Your task to perform on an android device: Open Amazon Image 0: 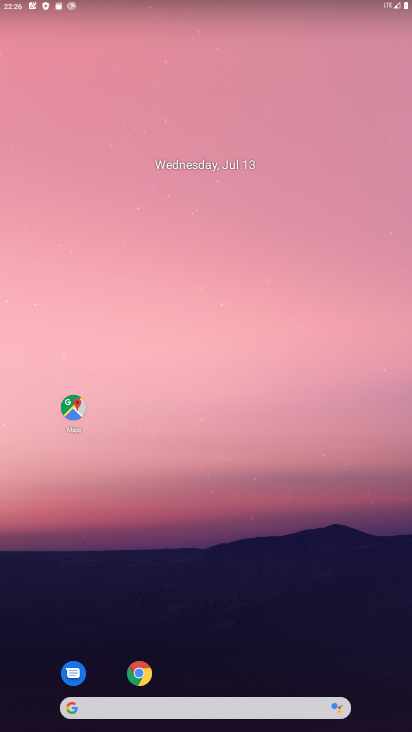
Step 0: drag from (199, 528) to (239, 206)
Your task to perform on an android device: Open Amazon Image 1: 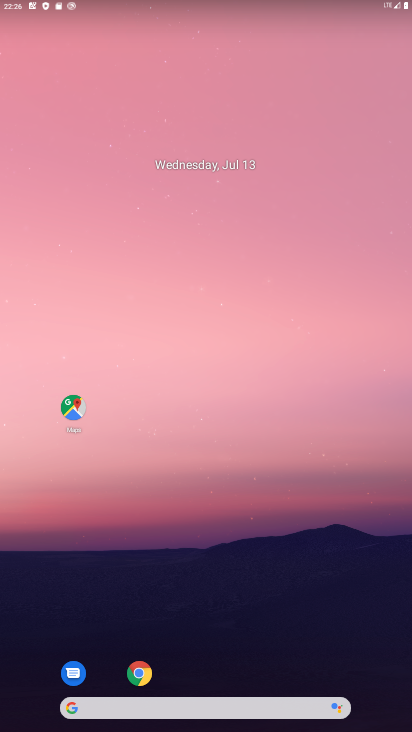
Step 1: drag from (175, 618) to (219, 207)
Your task to perform on an android device: Open Amazon Image 2: 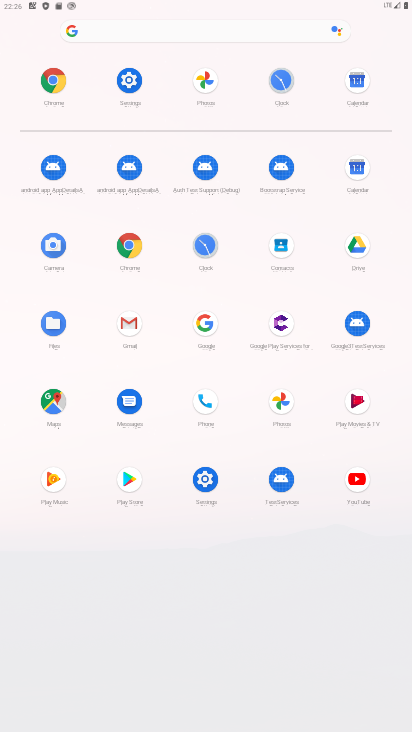
Step 2: click (48, 88)
Your task to perform on an android device: Open Amazon Image 3: 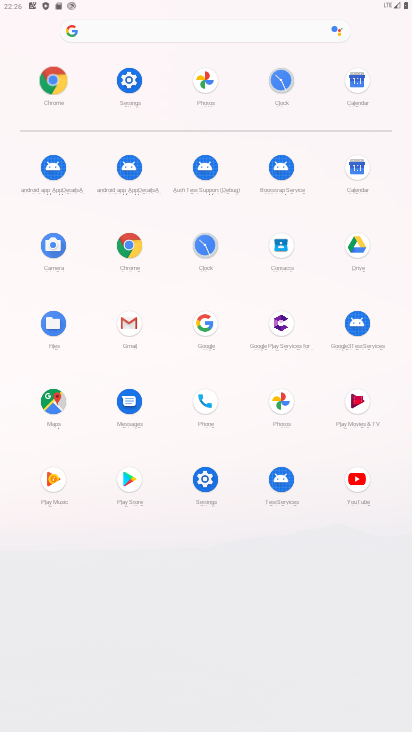
Step 3: click (48, 88)
Your task to perform on an android device: Open Amazon Image 4: 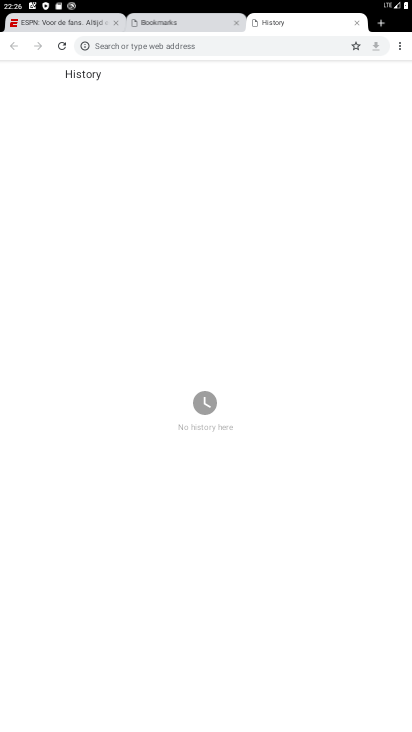
Step 4: drag from (218, 500) to (227, 267)
Your task to perform on an android device: Open Amazon Image 5: 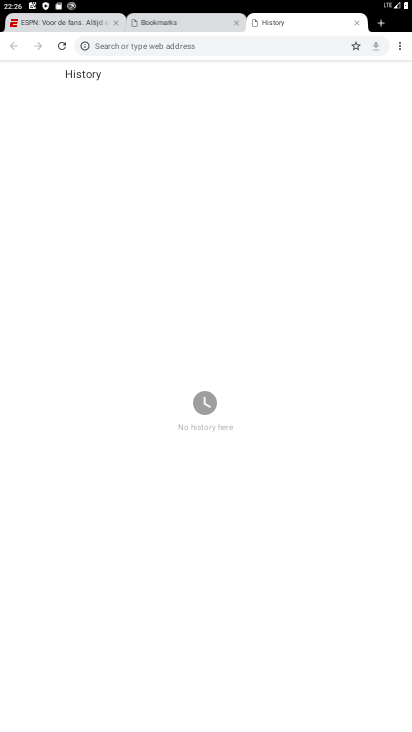
Step 5: press home button
Your task to perform on an android device: Open Amazon Image 6: 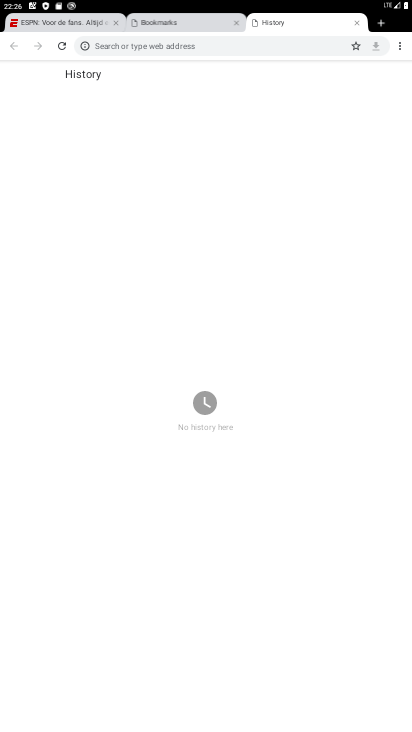
Step 6: press home button
Your task to perform on an android device: Open Amazon Image 7: 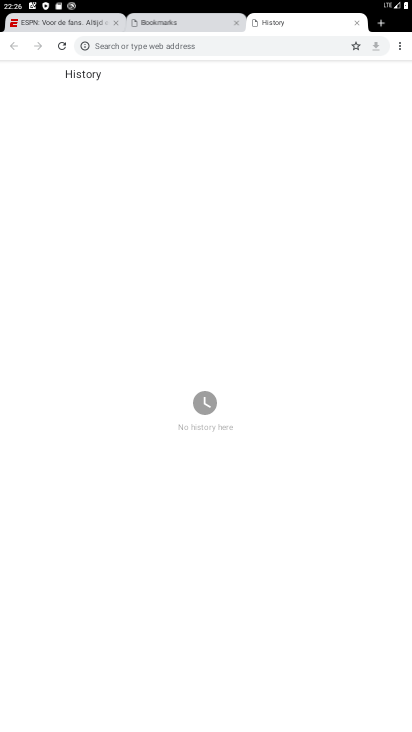
Step 7: click (199, 141)
Your task to perform on an android device: Open Amazon Image 8: 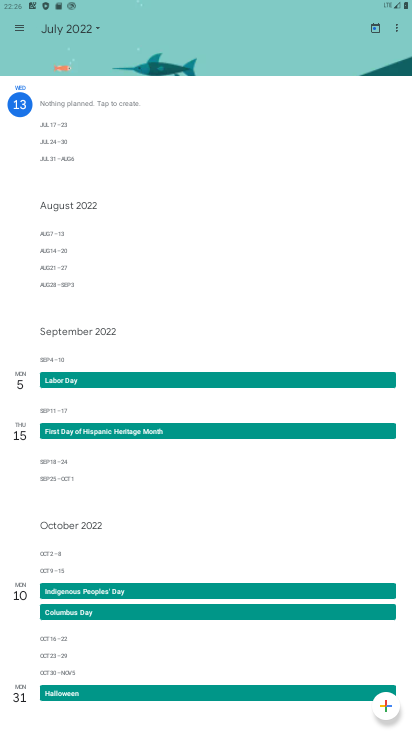
Step 8: press home button
Your task to perform on an android device: Open Amazon Image 9: 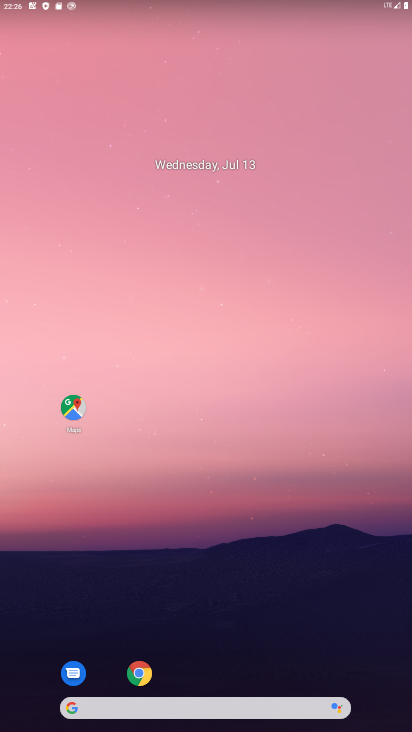
Step 9: drag from (214, 638) to (231, 259)
Your task to perform on an android device: Open Amazon Image 10: 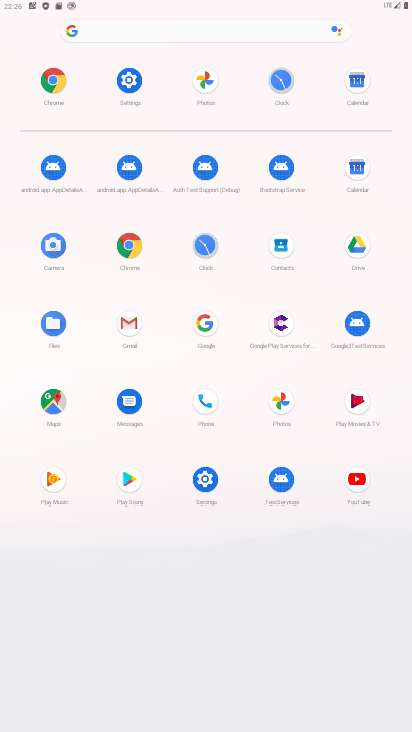
Step 10: click (131, 246)
Your task to perform on an android device: Open Amazon Image 11: 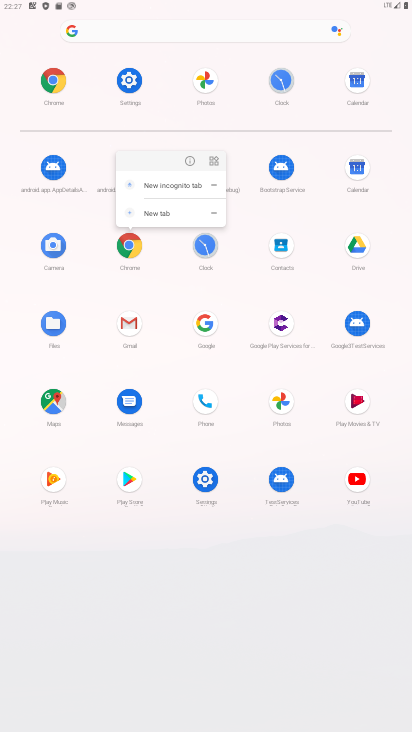
Step 11: click (187, 159)
Your task to perform on an android device: Open Amazon Image 12: 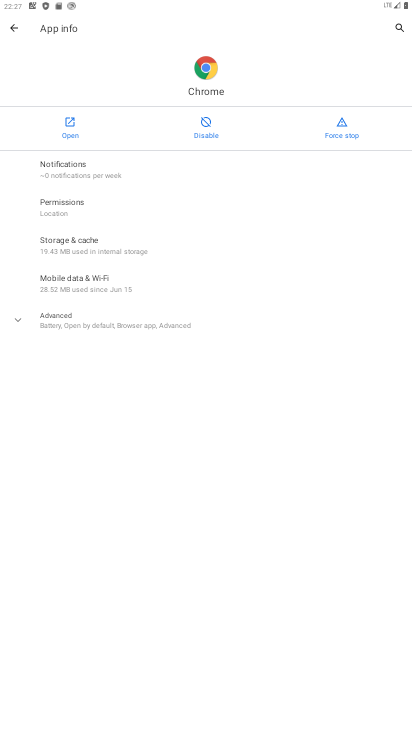
Step 12: click (71, 126)
Your task to perform on an android device: Open Amazon Image 13: 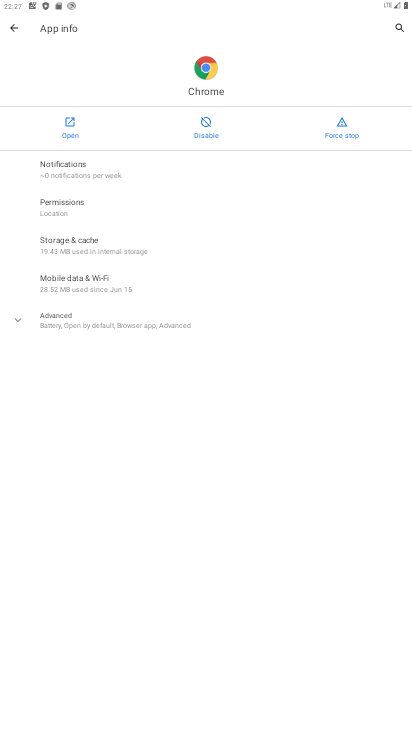
Step 13: click (71, 126)
Your task to perform on an android device: Open Amazon Image 14: 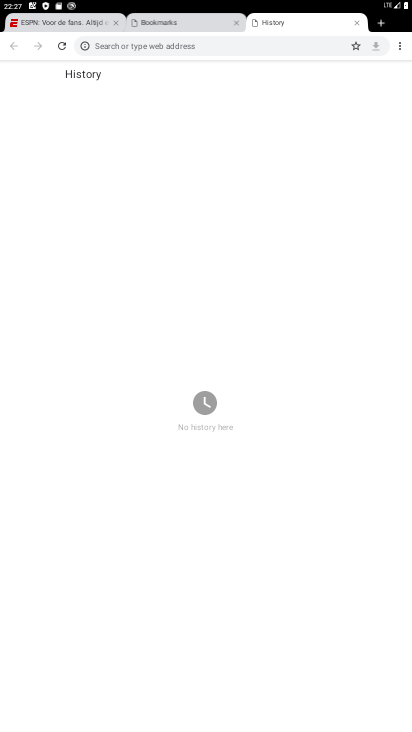
Step 14: click (197, 293)
Your task to perform on an android device: Open Amazon Image 15: 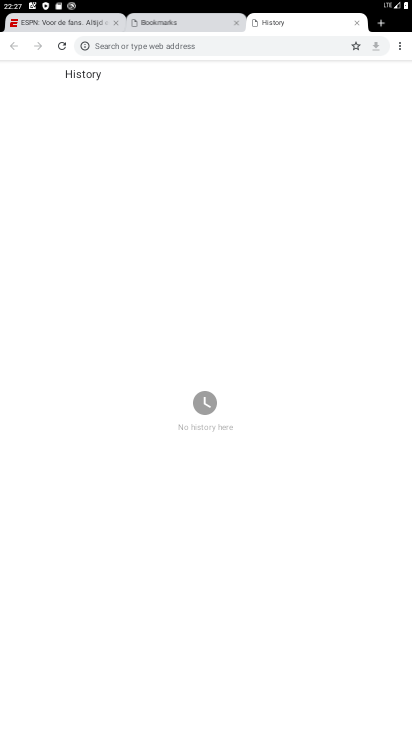
Step 15: click (118, 49)
Your task to perform on an android device: Open Amazon Image 16: 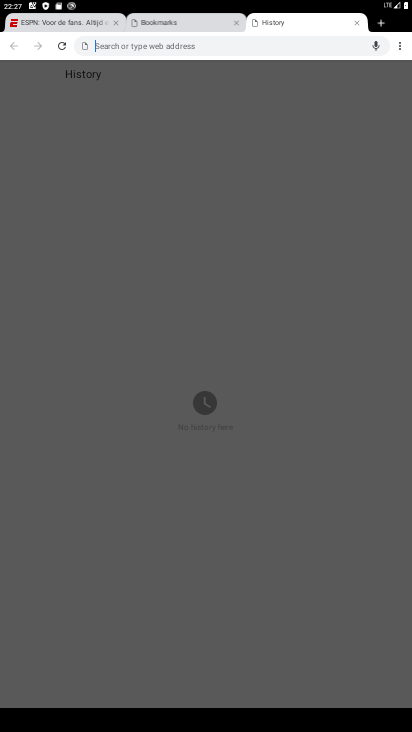
Step 16: type "amazon"
Your task to perform on an android device: Open Amazon Image 17: 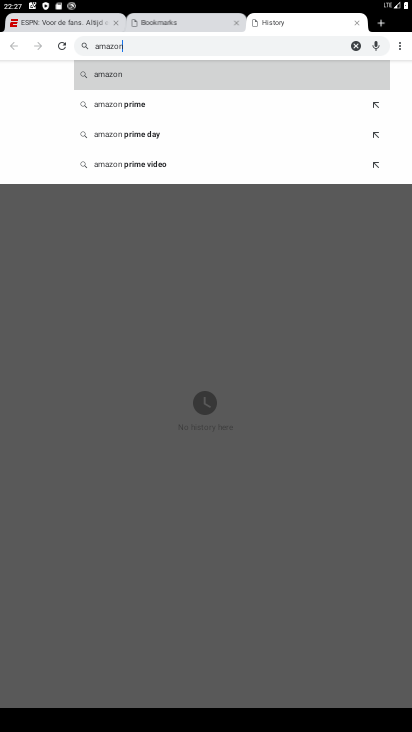
Step 17: click (108, 71)
Your task to perform on an android device: Open Amazon Image 18: 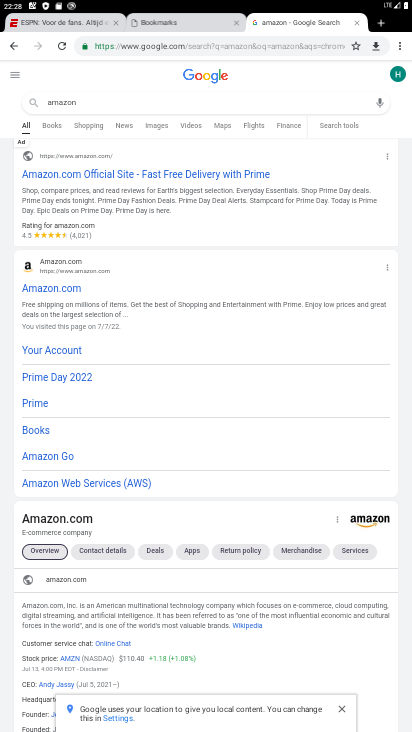
Step 18: drag from (211, 333) to (213, 442)
Your task to perform on an android device: Open Amazon Image 19: 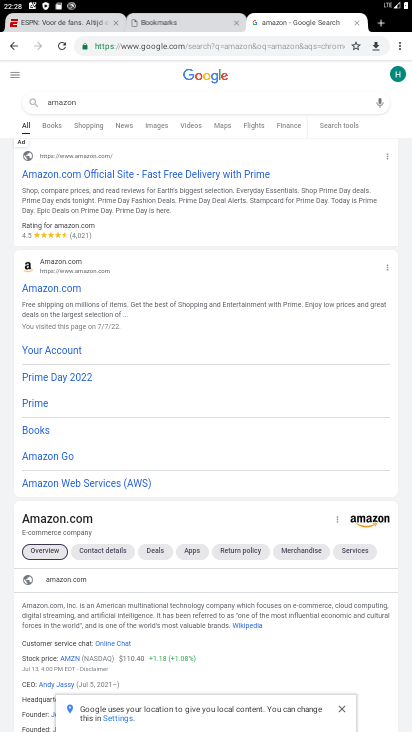
Step 19: click (68, 178)
Your task to perform on an android device: Open Amazon Image 20: 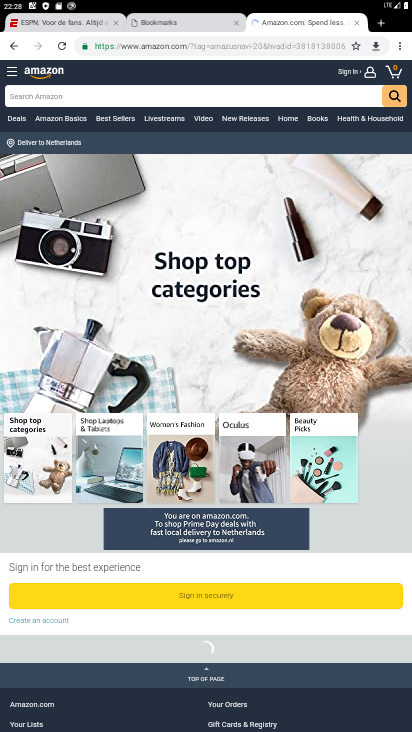
Step 20: task complete